Your task to perform on an android device: see sites visited before in the chrome app Image 0: 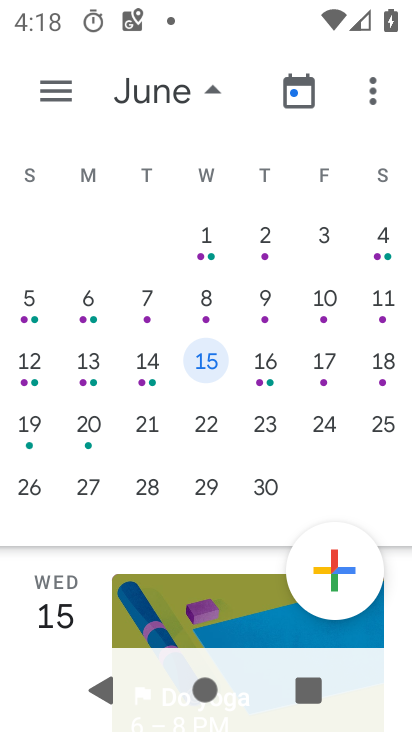
Step 0: press home button
Your task to perform on an android device: see sites visited before in the chrome app Image 1: 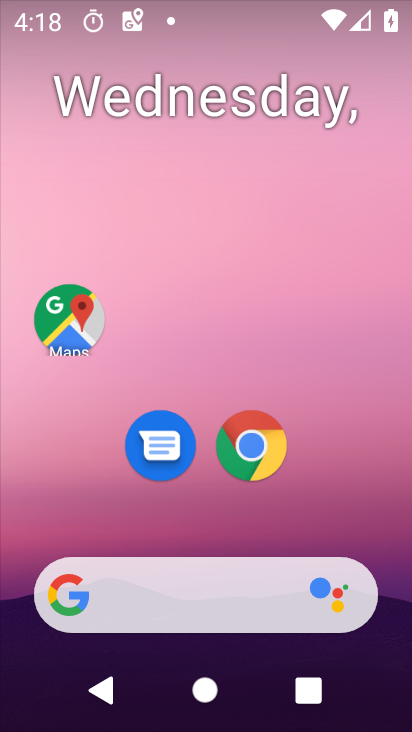
Step 1: drag from (210, 500) to (191, 123)
Your task to perform on an android device: see sites visited before in the chrome app Image 2: 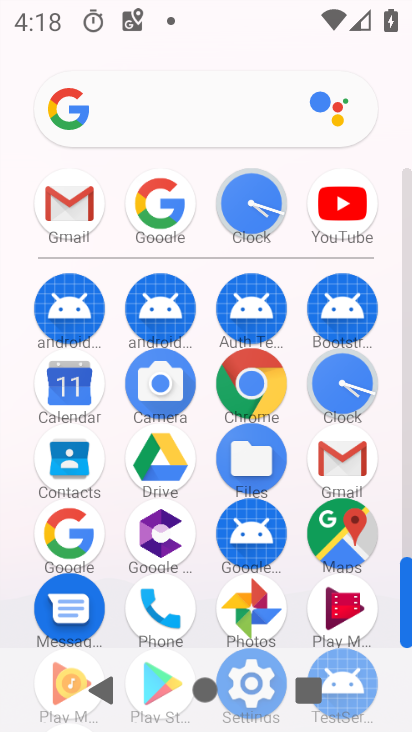
Step 2: click (248, 384)
Your task to perform on an android device: see sites visited before in the chrome app Image 3: 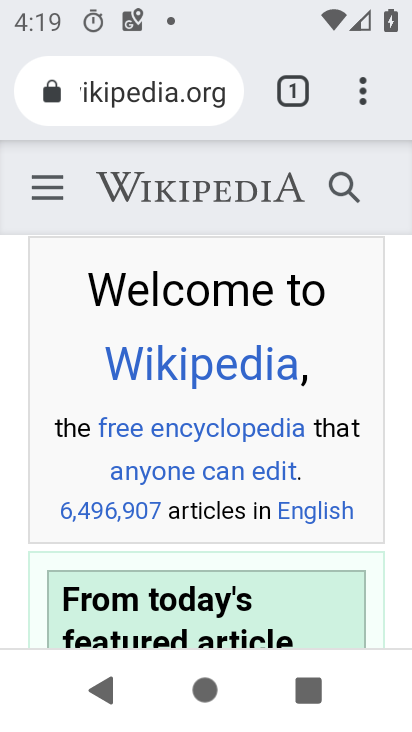
Step 3: click (351, 91)
Your task to perform on an android device: see sites visited before in the chrome app Image 4: 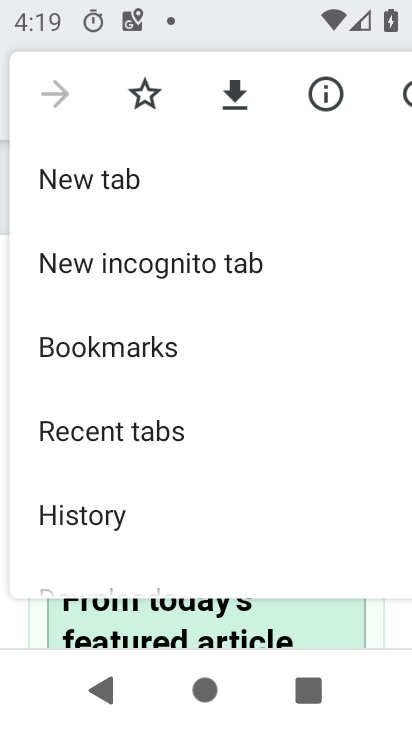
Step 4: drag from (110, 498) to (143, 308)
Your task to perform on an android device: see sites visited before in the chrome app Image 5: 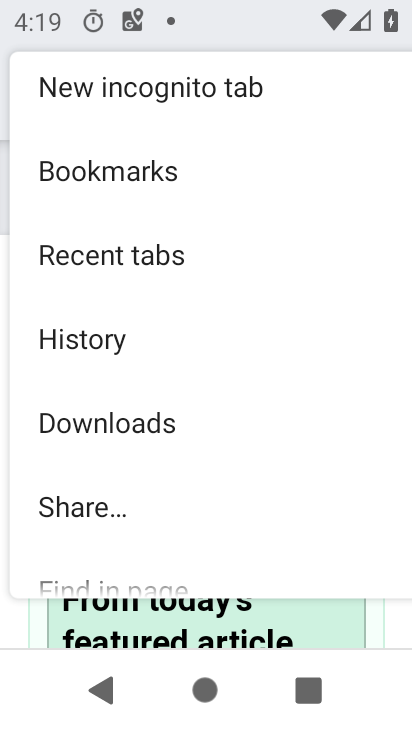
Step 5: click (99, 334)
Your task to perform on an android device: see sites visited before in the chrome app Image 6: 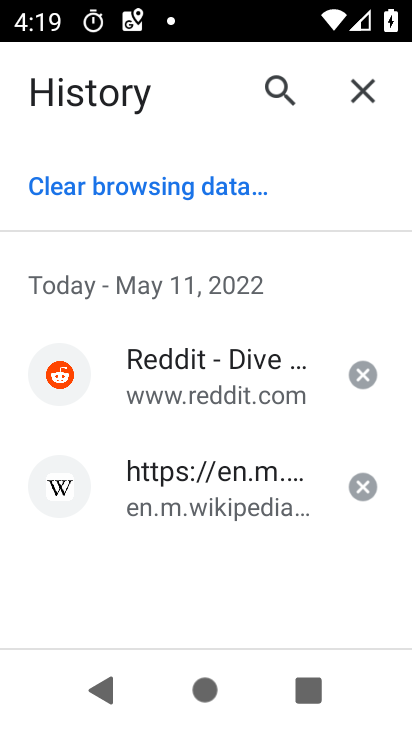
Step 6: task complete